Your task to perform on an android device: check google app version Image 0: 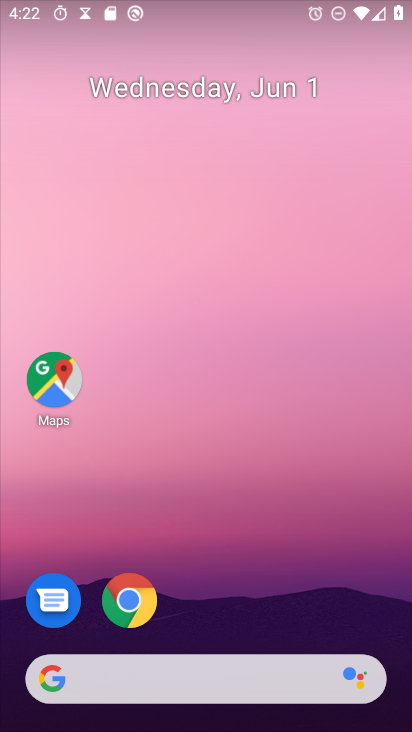
Step 0: drag from (216, 632) to (217, 83)
Your task to perform on an android device: check google app version Image 1: 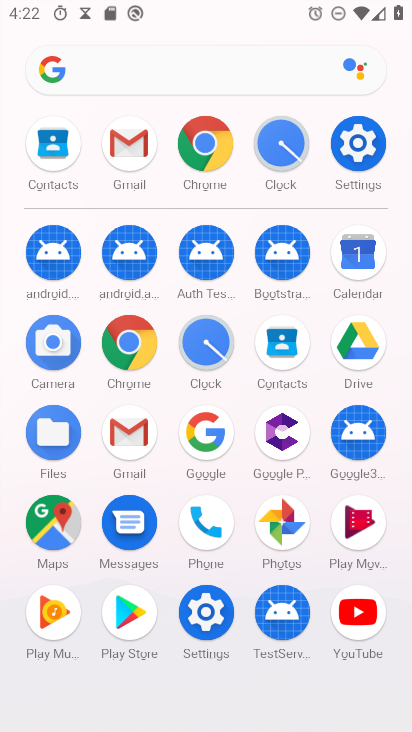
Step 1: click (121, 350)
Your task to perform on an android device: check google app version Image 2: 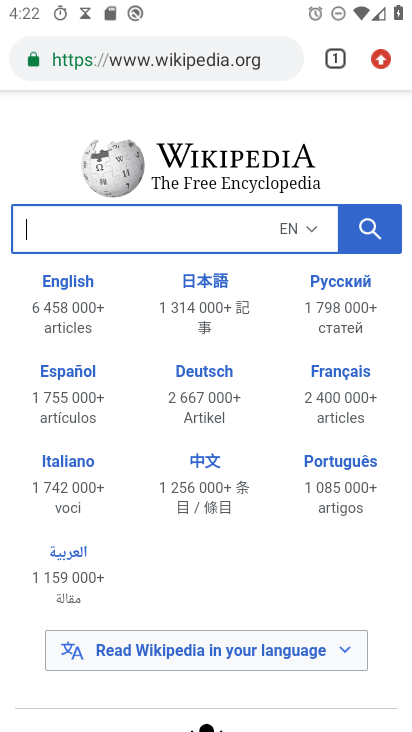
Step 2: press back button
Your task to perform on an android device: check google app version Image 3: 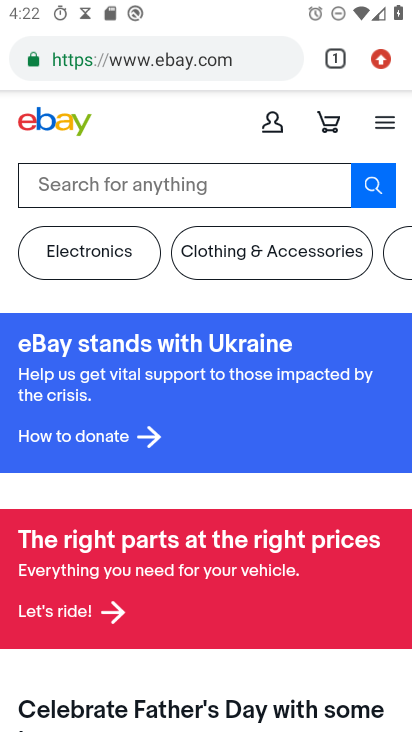
Step 3: press back button
Your task to perform on an android device: check google app version Image 4: 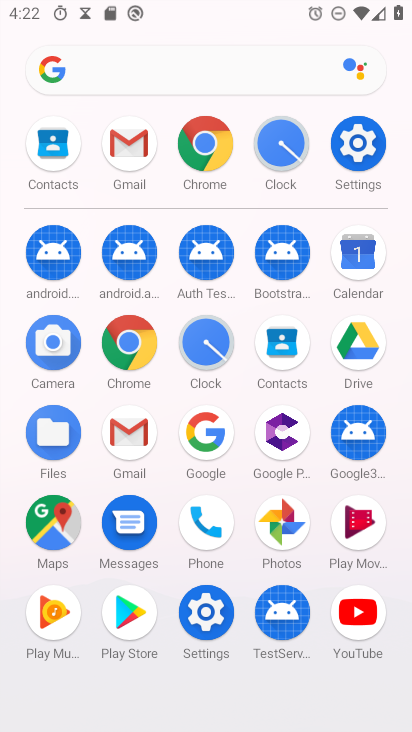
Step 4: click (205, 449)
Your task to perform on an android device: check google app version Image 5: 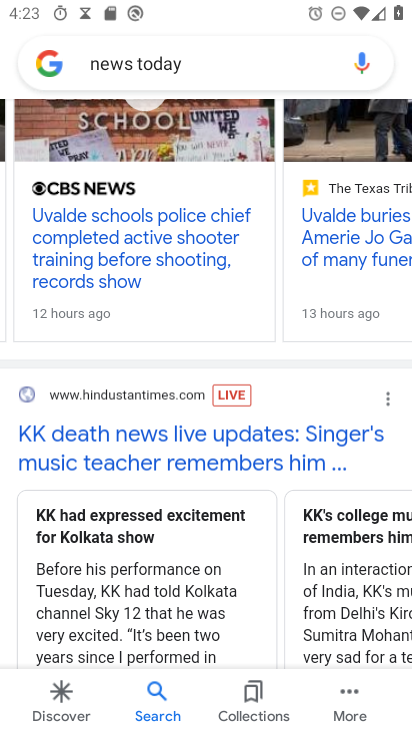
Step 5: click (48, 66)
Your task to perform on an android device: check google app version Image 6: 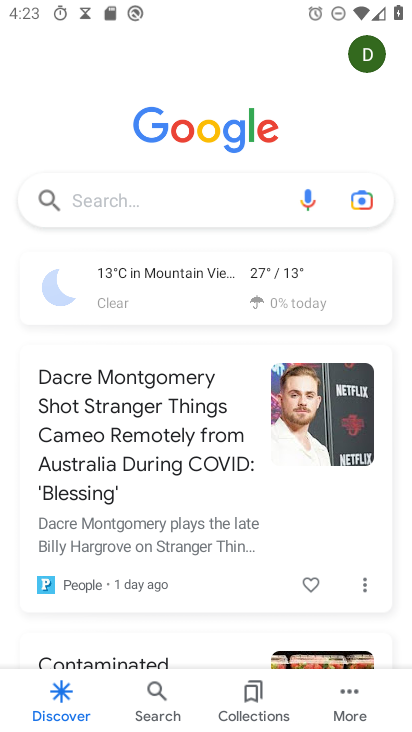
Step 6: click (353, 707)
Your task to perform on an android device: check google app version Image 7: 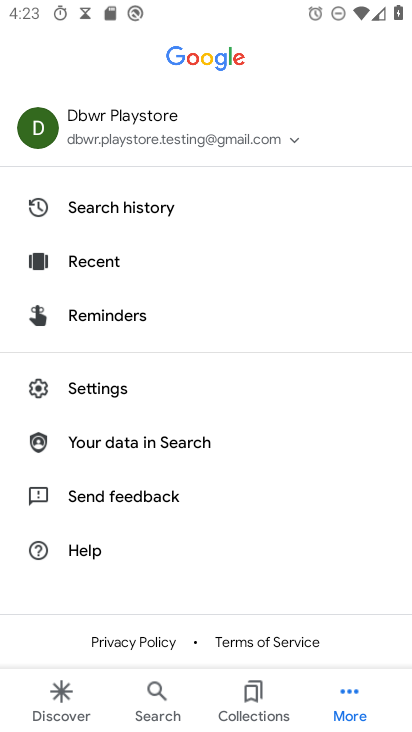
Step 7: click (78, 389)
Your task to perform on an android device: check google app version Image 8: 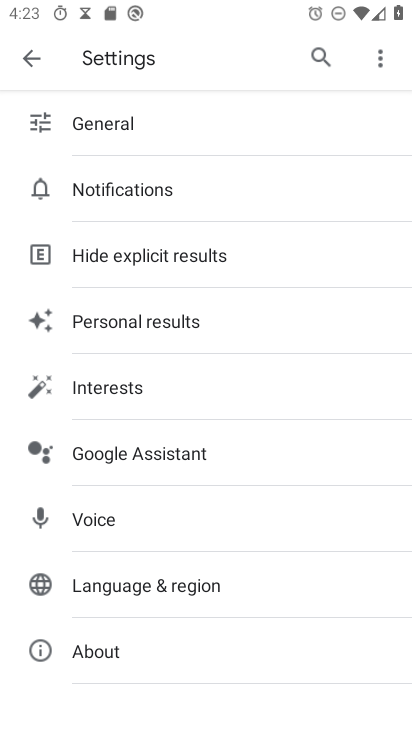
Step 8: click (110, 655)
Your task to perform on an android device: check google app version Image 9: 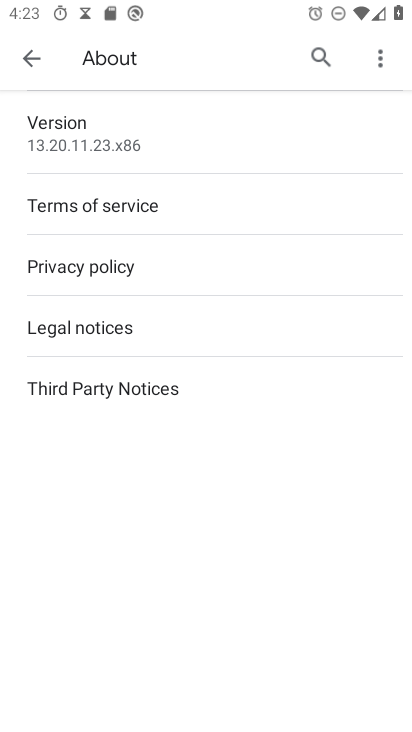
Step 9: task complete